Your task to perform on an android device: turn on improve location accuracy Image 0: 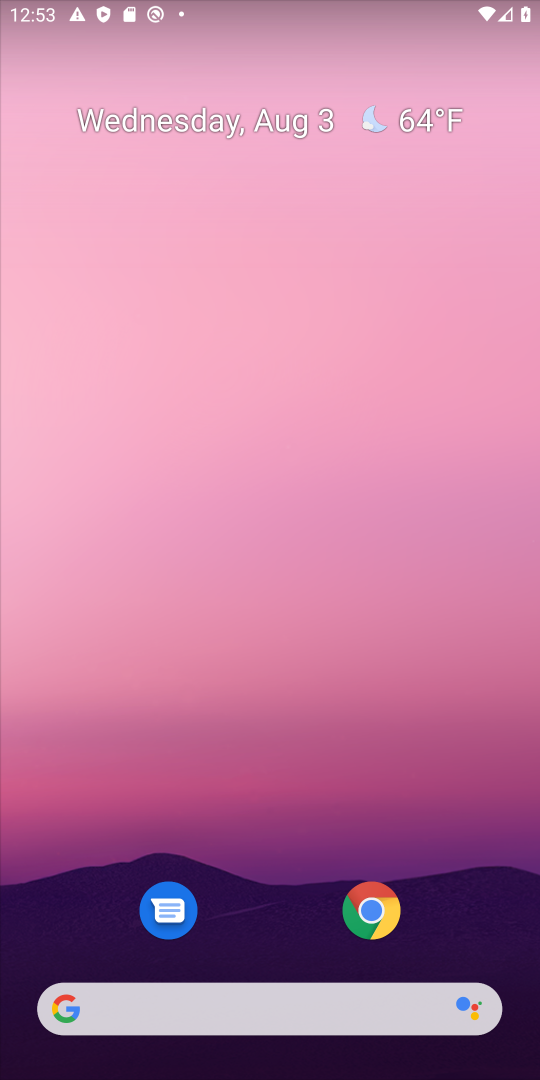
Step 0: drag from (293, 831) to (261, 3)
Your task to perform on an android device: turn on improve location accuracy Image 1: 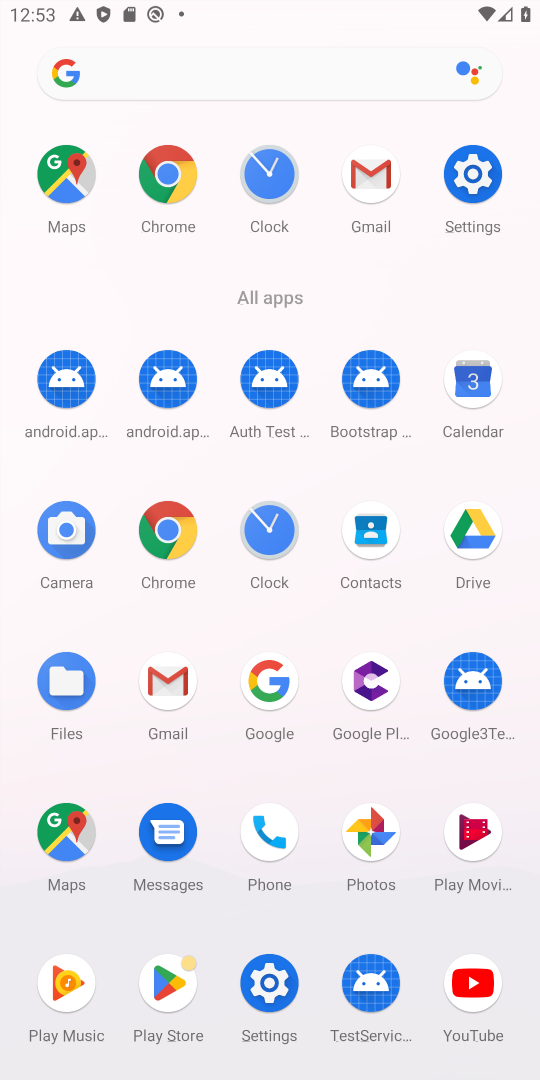
Step 1: click (456, 162)
Your task to perform on an android device: turn on improve location accuracy Image 2: 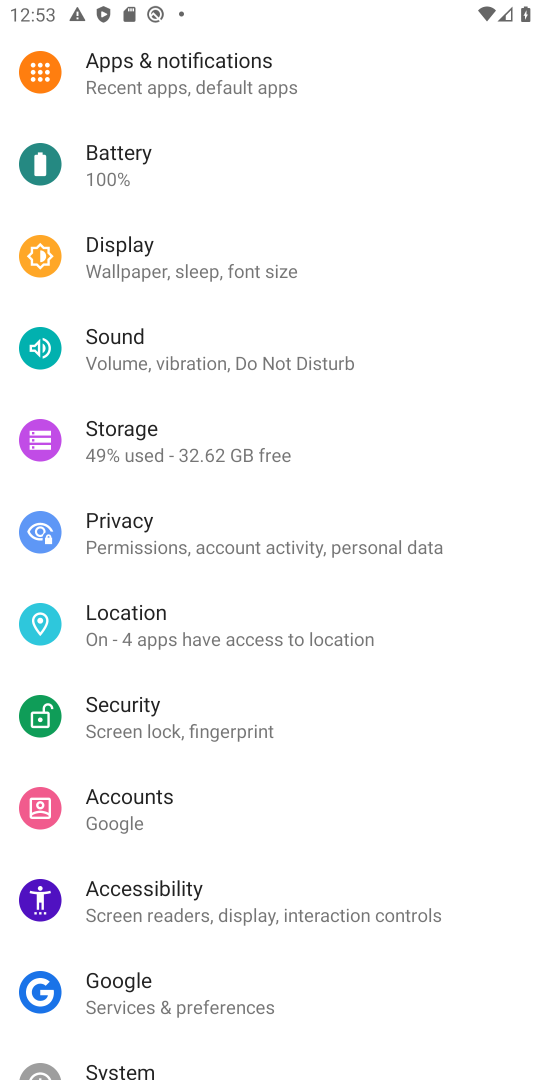
Step 2: click (199, 627)
Your task to perform on an android device: turn on improve location accuracy Image 3: 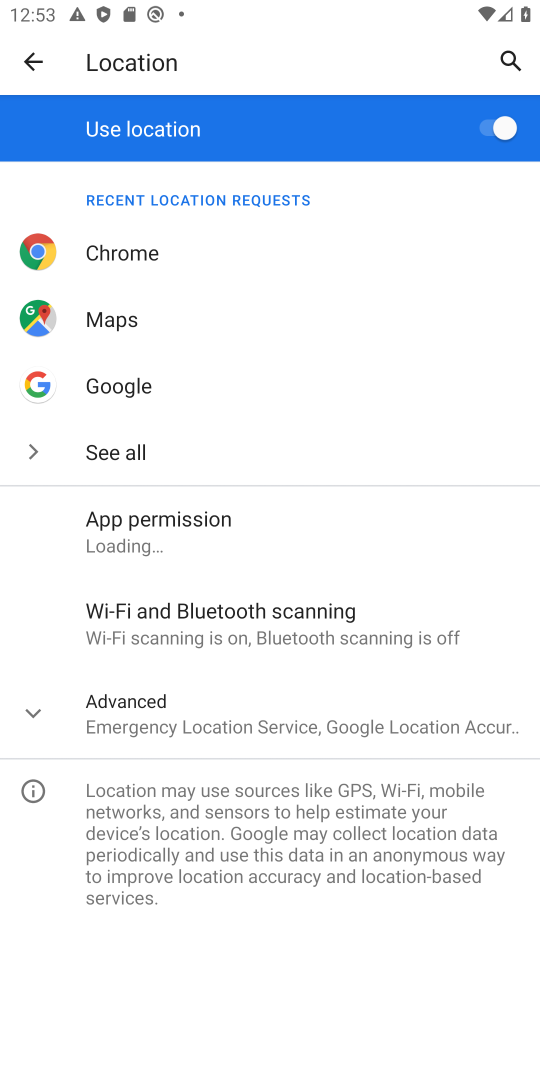
Step 3: click (176, 707)
Your task to perform on an android device: turn on improve location accuracy Image 4: 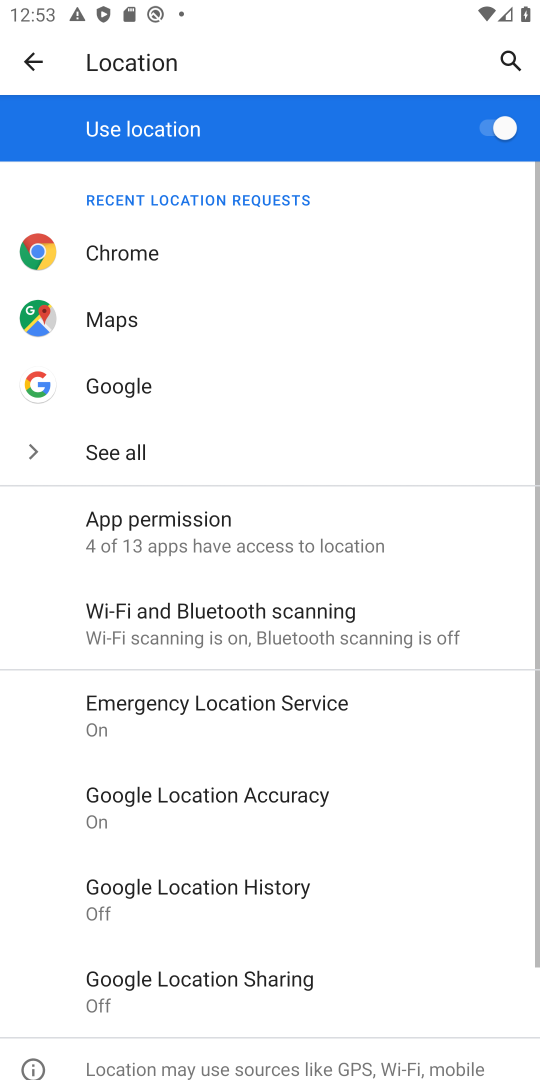
Step 4: click (280, 807)
Your task to perform on an android device: turn on improve location accuracy Image 5: 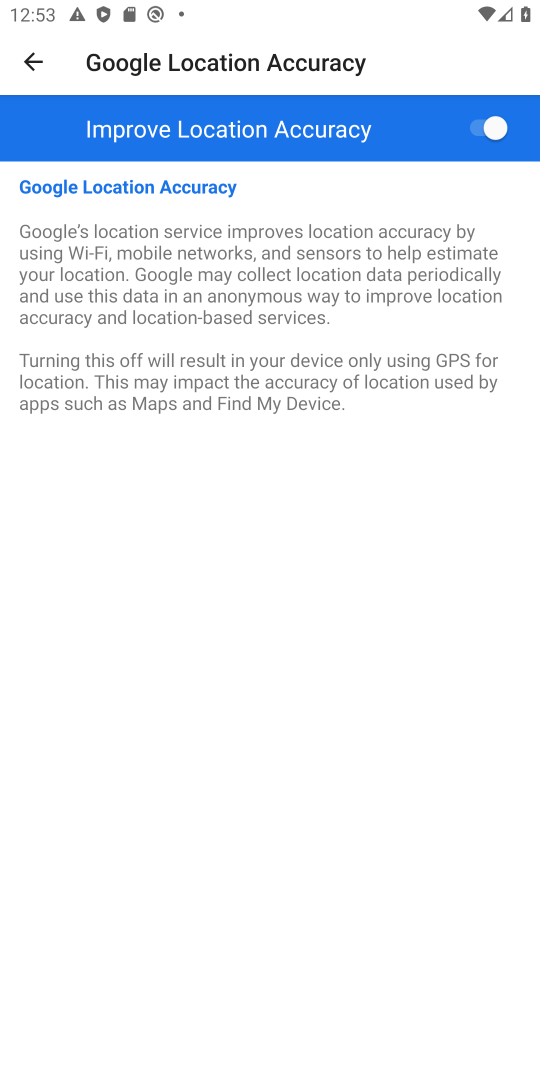
Step 5: task complete